Your task to perform on an android device: Check the weather Image 0: 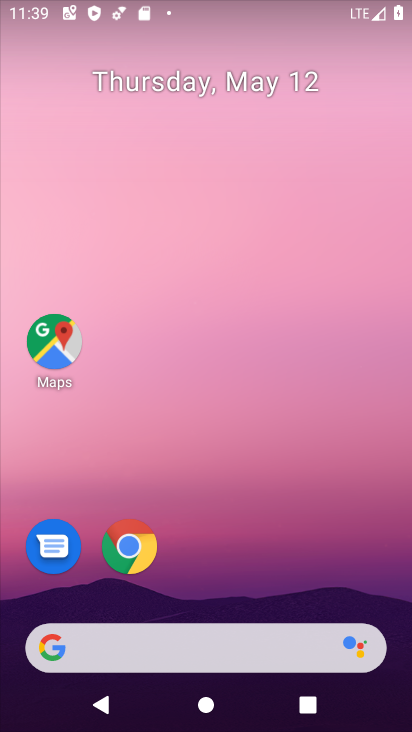
Step 0: drag from (239, 501) to (289, 138)
Your task to perform on an android device: Check the weather Image 1: 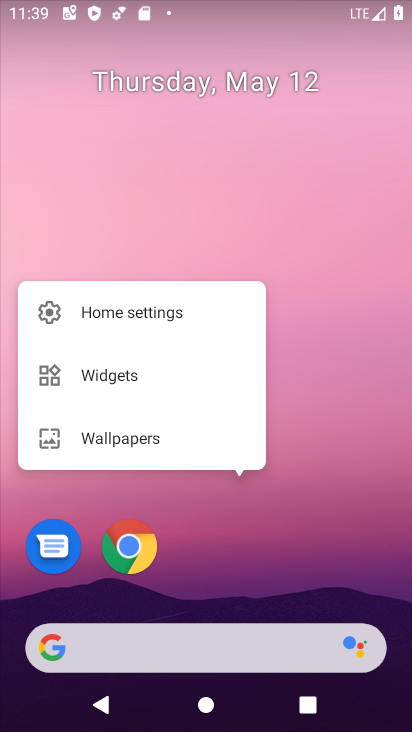
Step 1: click (325, 473)
Your task to perform on an android device: Check the weather Image 2: 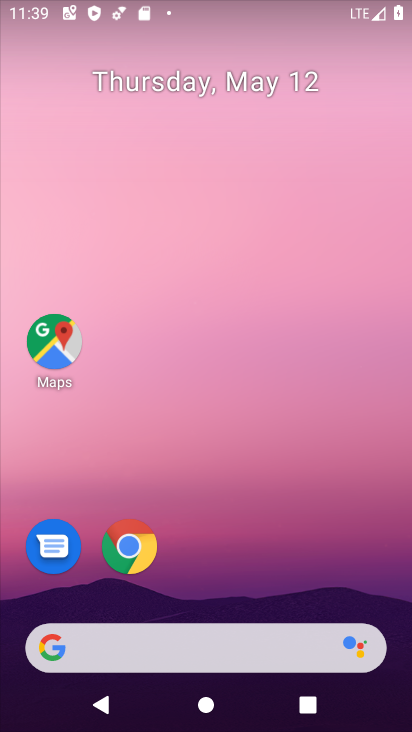
Step 2: drag from (264, 540) to (299, 244)
Your task to perform on an android device: Check the weather Image 3: 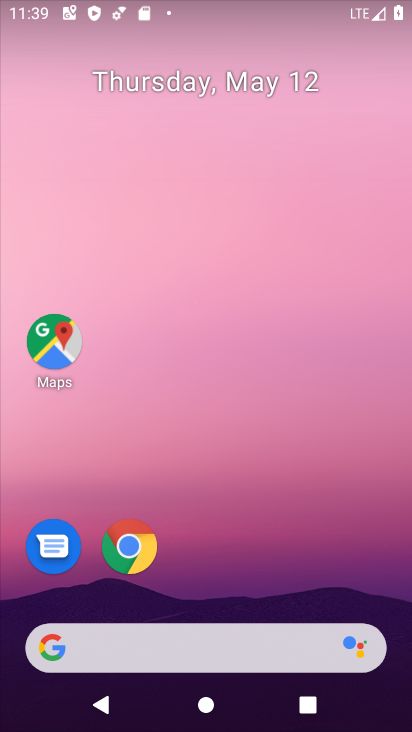
Step 3: drag from (229, 386) to (253, 120)
Your task to perform on an android device: Check the weather Image 4: 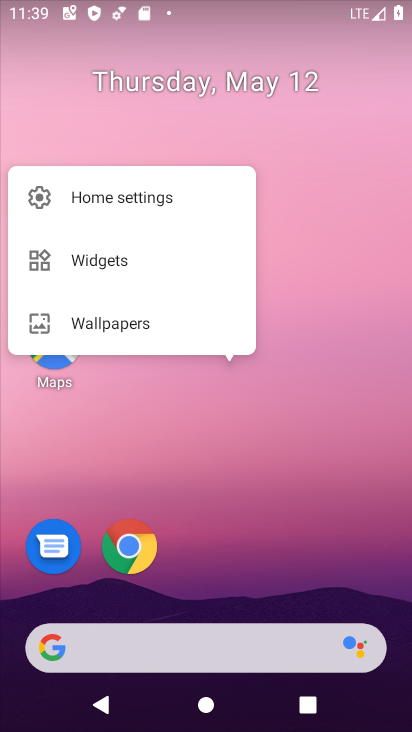
Step 4: click (258, 517)
Your task to perform on an android device: Check the weather Image 5: 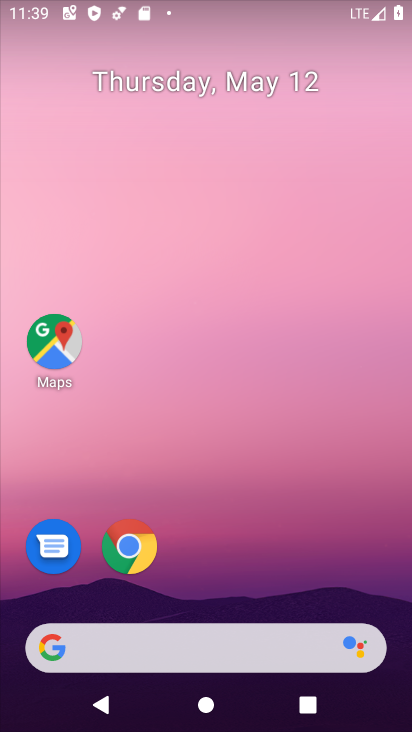
Step 5: drag from (258, 517) to (275, 65)
Your task to perform on an android device: Check the weather Image 6: 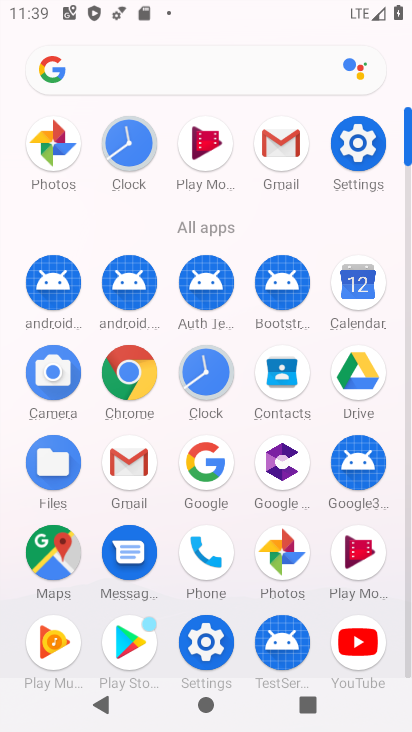
Step 6: click (210, 467)
Your task to perform on an android device: Check the weather Image 7: 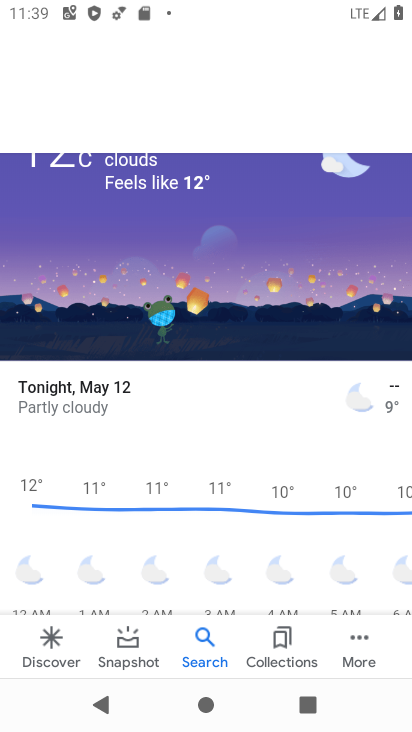
Step 7: task complete